Your task to perform on an android device: turn off wifi Image 0: 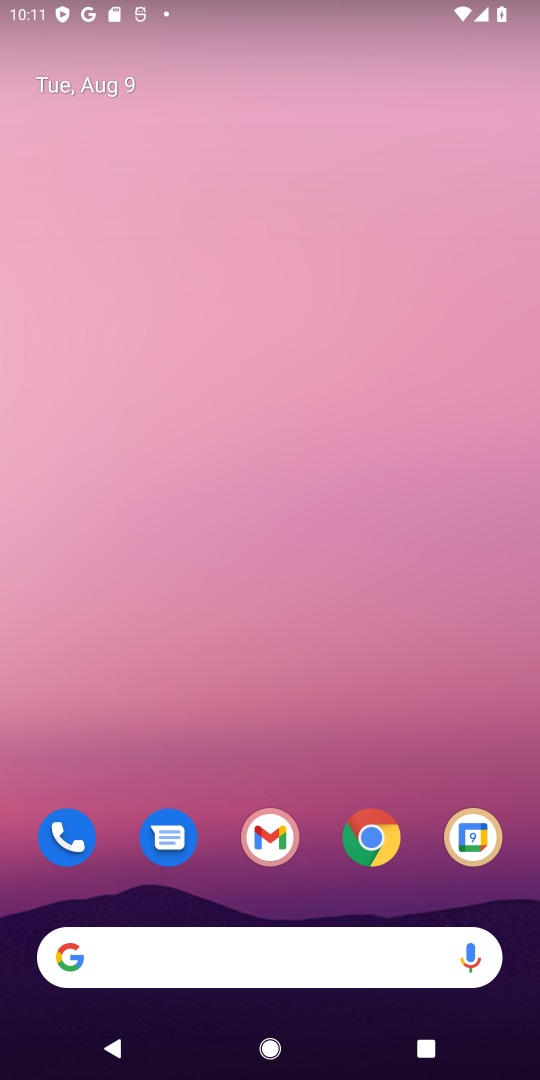
Step 0: drag from (325, 916) to (320, 236)
Your task to perform on an android device: turn off wifi Image 1: 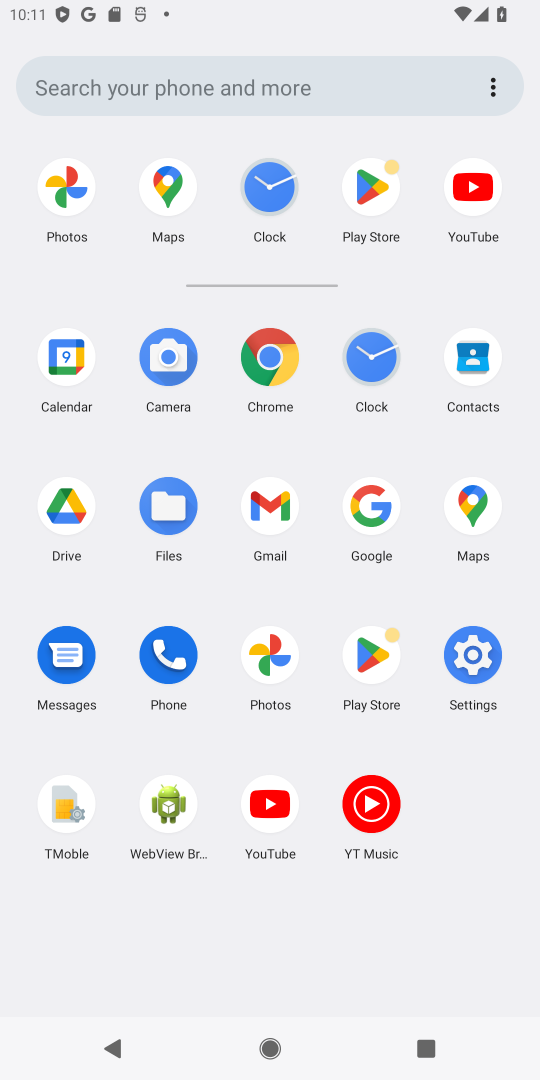
Step 1: click (477, 645)
Your task to perform on an android device: turn off wifi Image 2: 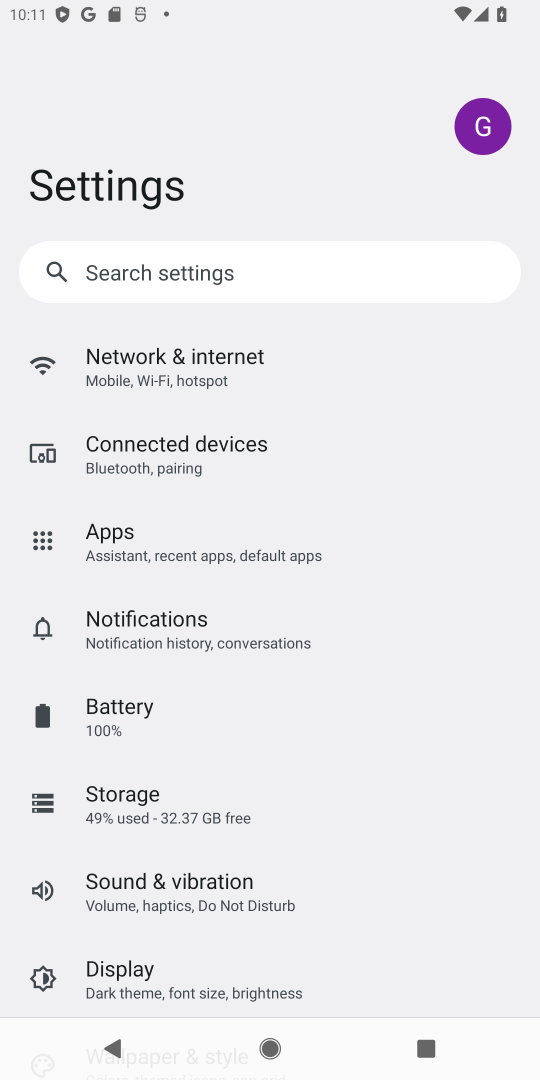
Step 2: click (123, 356)
Your task to perform on an android device: turn off wifi Image 3: 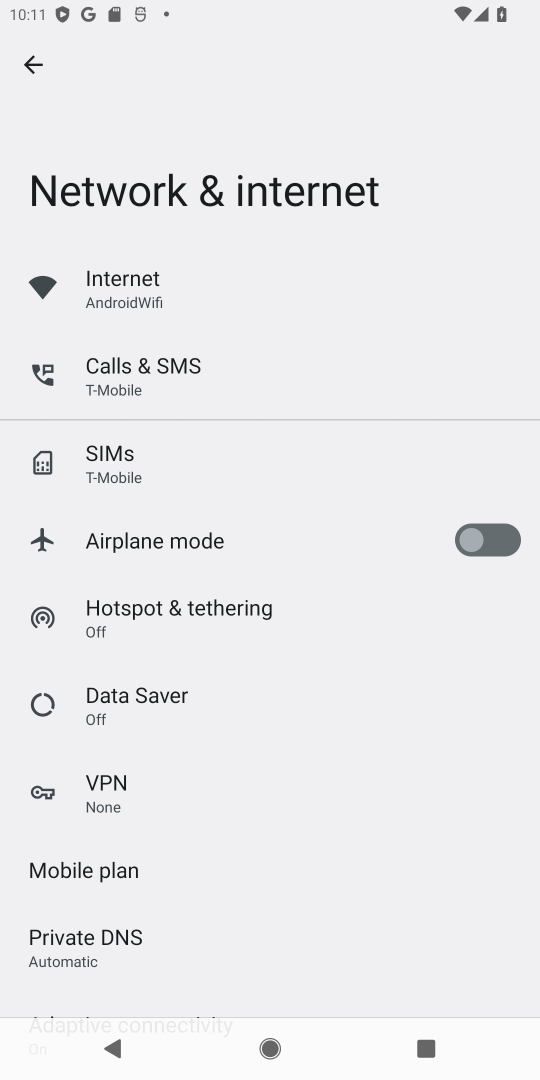
Step 3: click (126, 292)
Your task to perform on an android device: turn off wifi Image 4: 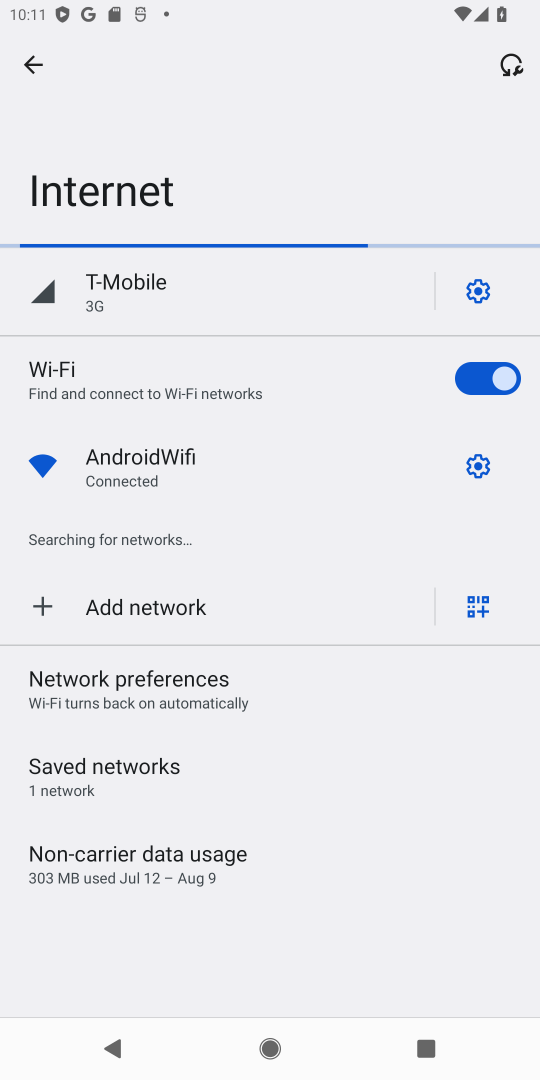
Step 4: click (496, 386)
Your task to perform on an android device: turn off wifi Image 5: 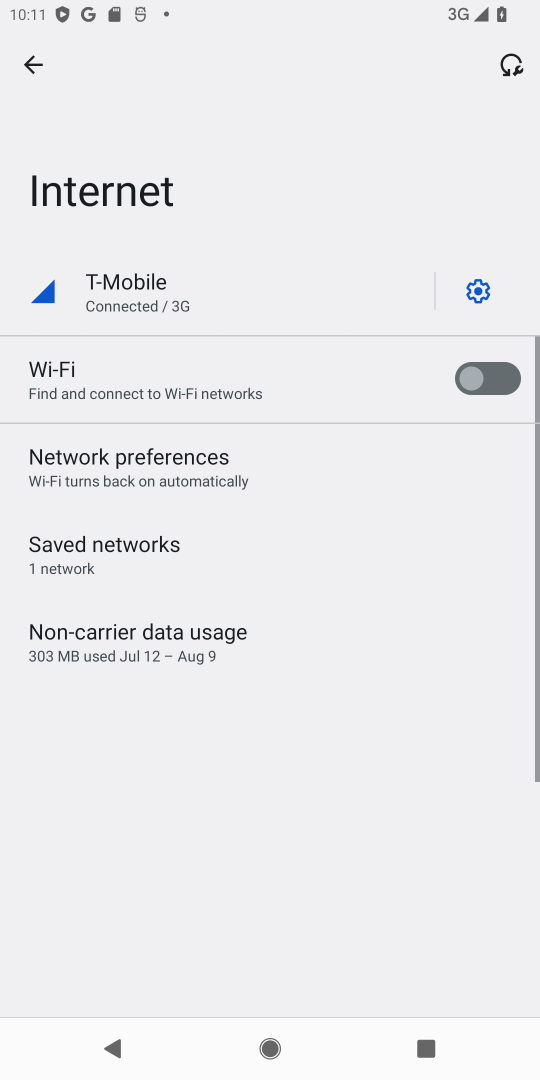
Step 5: task complete